Your task to perform on an android device: Open Google Chrome Image 0: 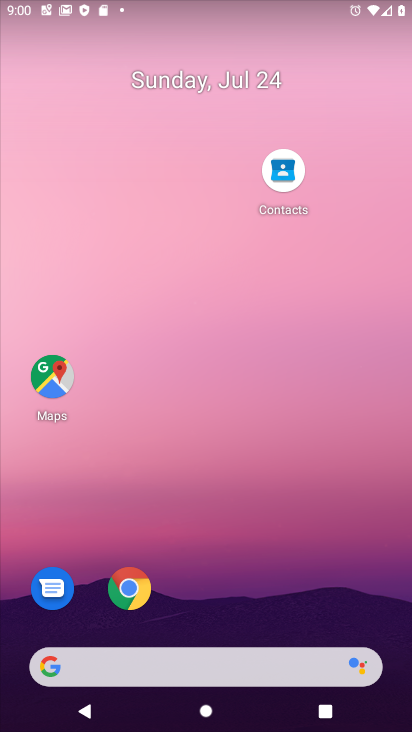
Step 0: click (131, 582)
Your task to perform on an android device: Open Google Chrome Image 1: 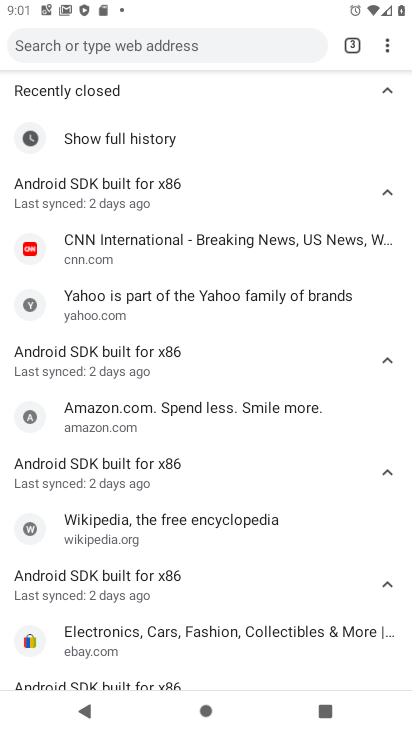
Step 1: click (354, 38)
Your task to perform on an android device: Open Google Chrome Image 2: 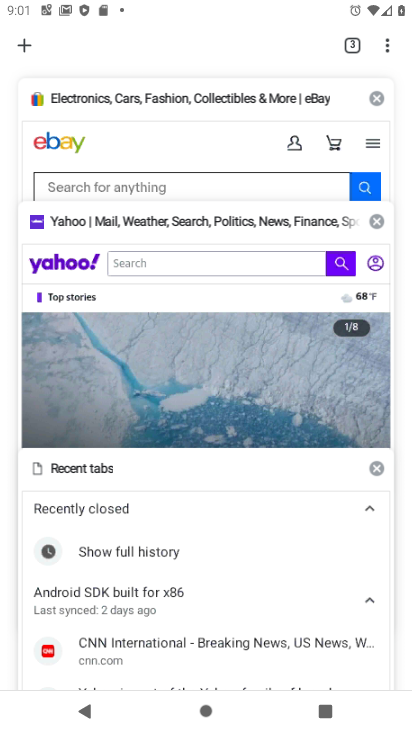
Step 2: click (26, 45)
Your task to perform on an android device: Open Google Chrome Image 3: 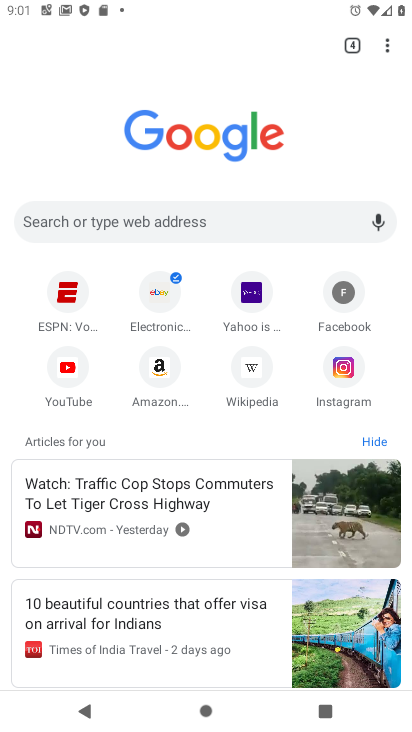
Step 3: task complete